Your task to perform on an android device: Open my contact list Image 0: 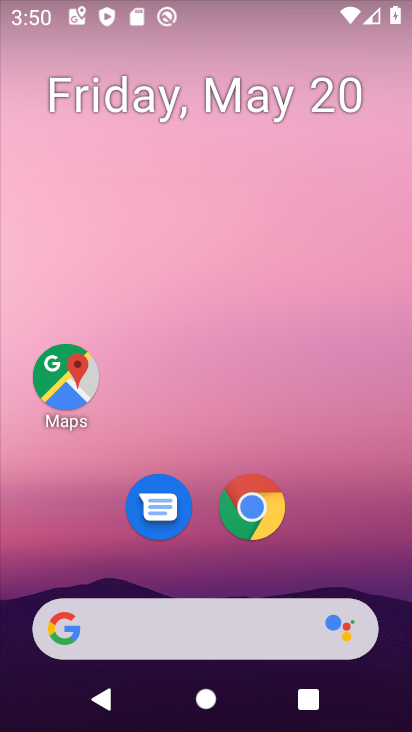
Step 0: drag from (344, 535) to (212, 148)
Your task to perform on an android device: Open my contact list Image 1: 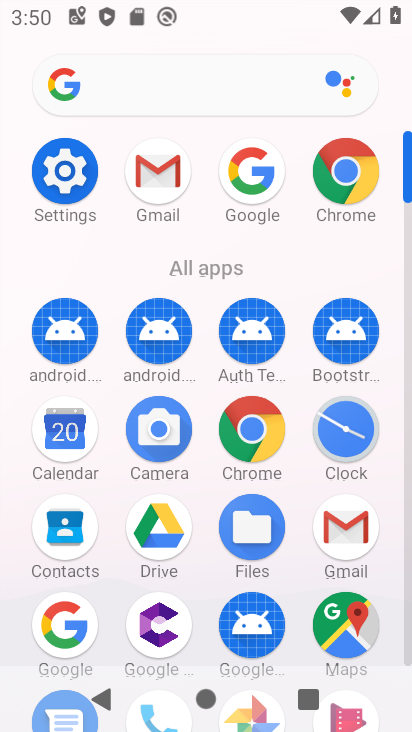
Step 1: click (65, 529)
Your task to perform on an android device: Open my contact list Image 2: 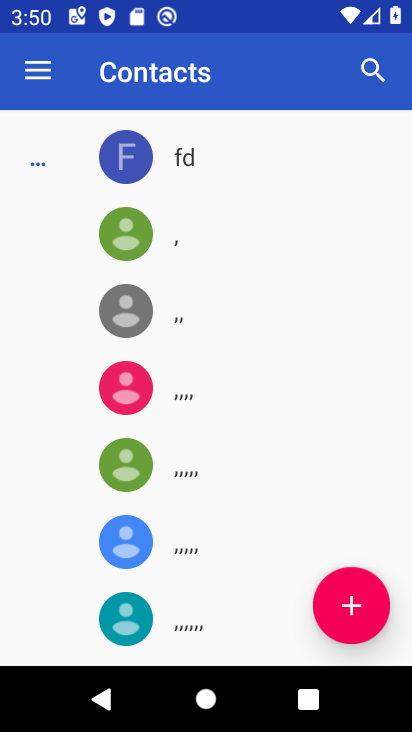
Step 2: task complete